Your task to perform on an android device: Search for "bose quietcomfort 35" on newegg.com, select the first entry, and add it to the cart. Image 0: 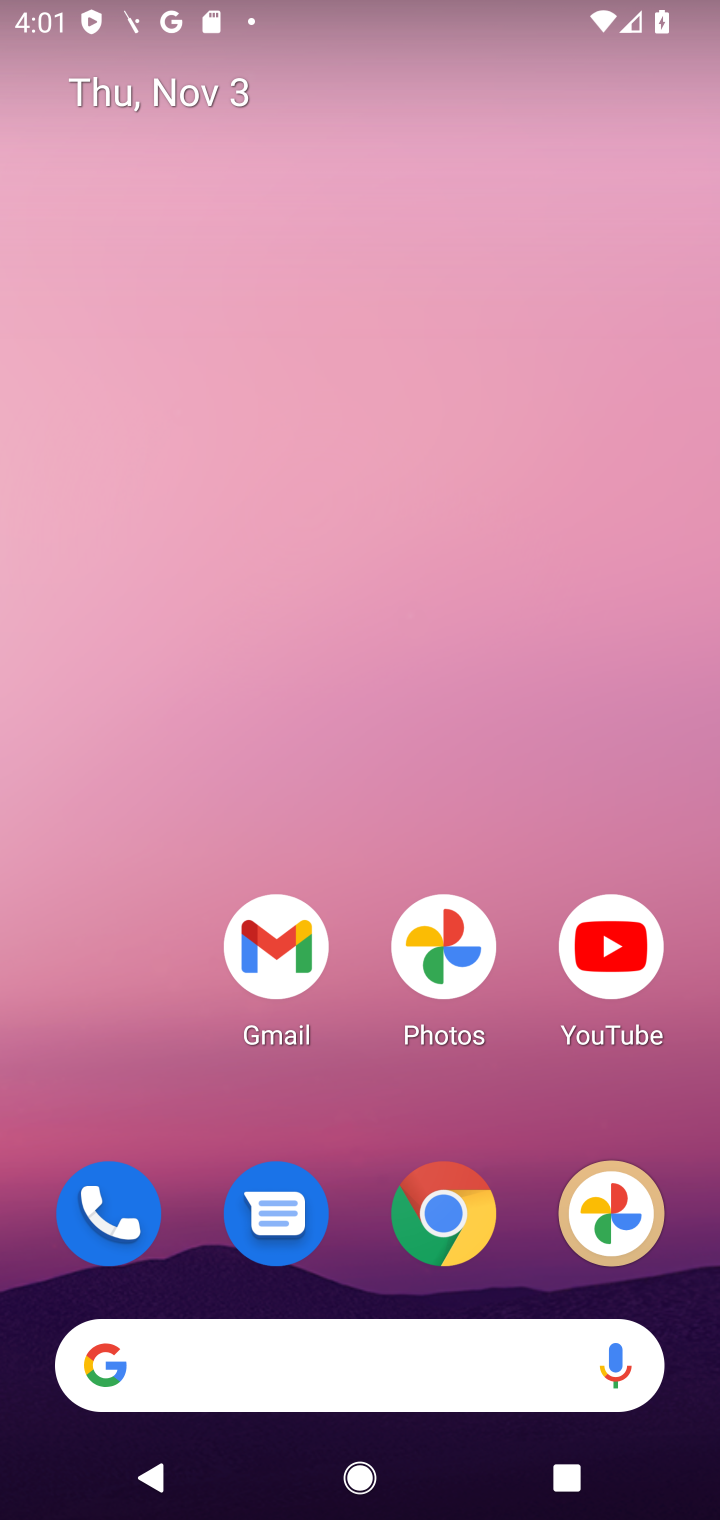
Step 0: click (427, 1231)
Your task to perform on an android device: Search for "bose quietcomfort 35" on newegg.com, select the first entry, and add it to the cart. Image 1: 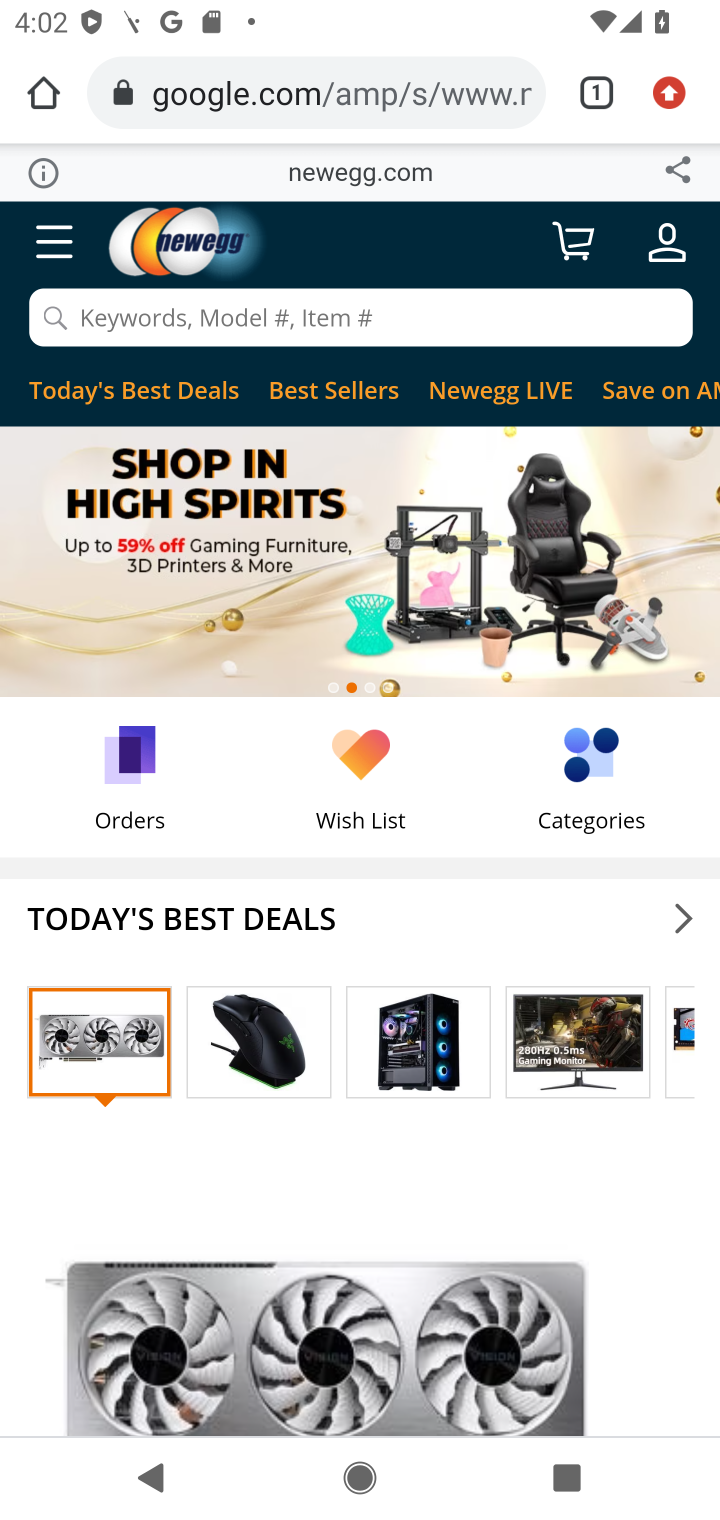
Step 1: click (252, 321)
Your task to perform on an android device: Search for "bose quietcomfort 35" on newegg.com, select the first entry, and add it to the cart. Image 2: 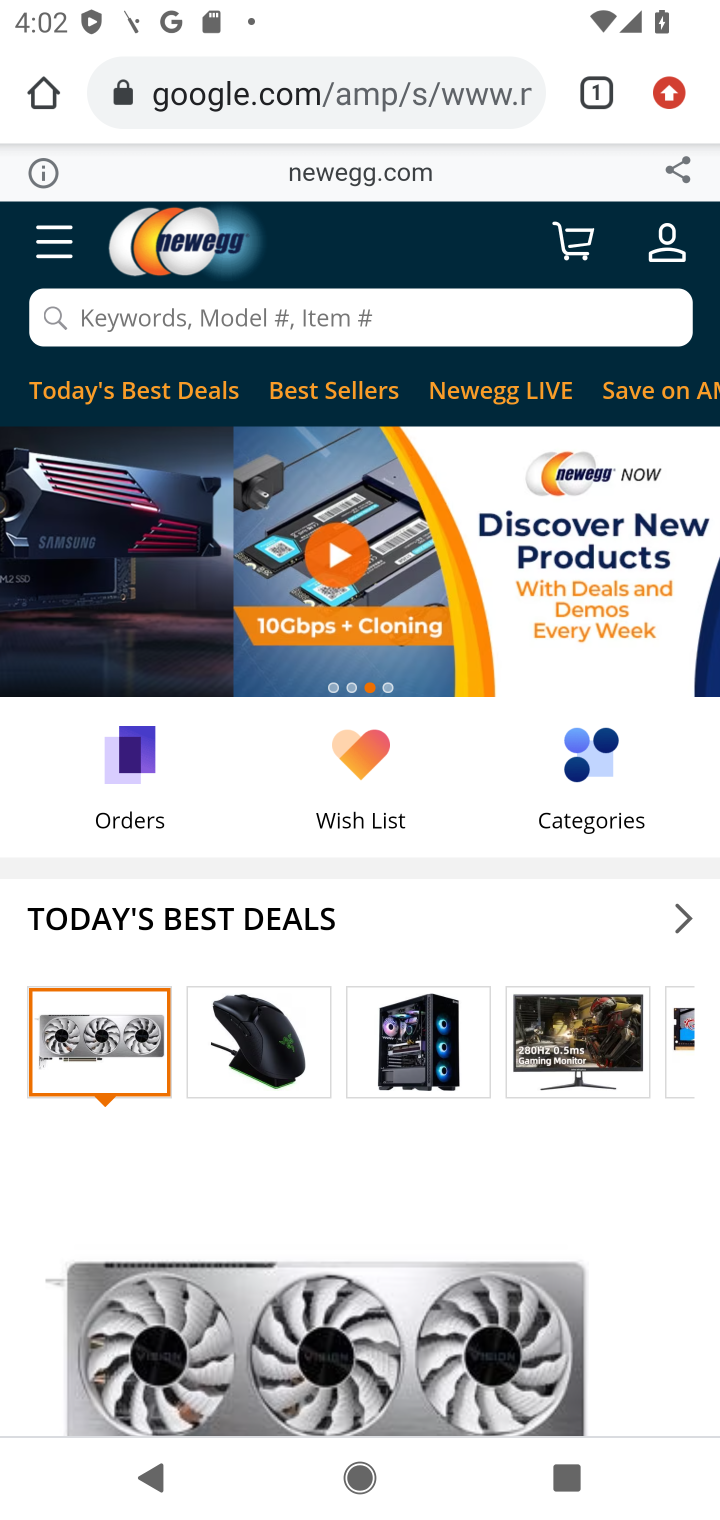
Step 2: type "bose quietcomfort 35"
Your task to perform on an android device: Search for "bose quietcomfort 35" on newegg.com, select the first entry, and add it to the cart. Image 3: 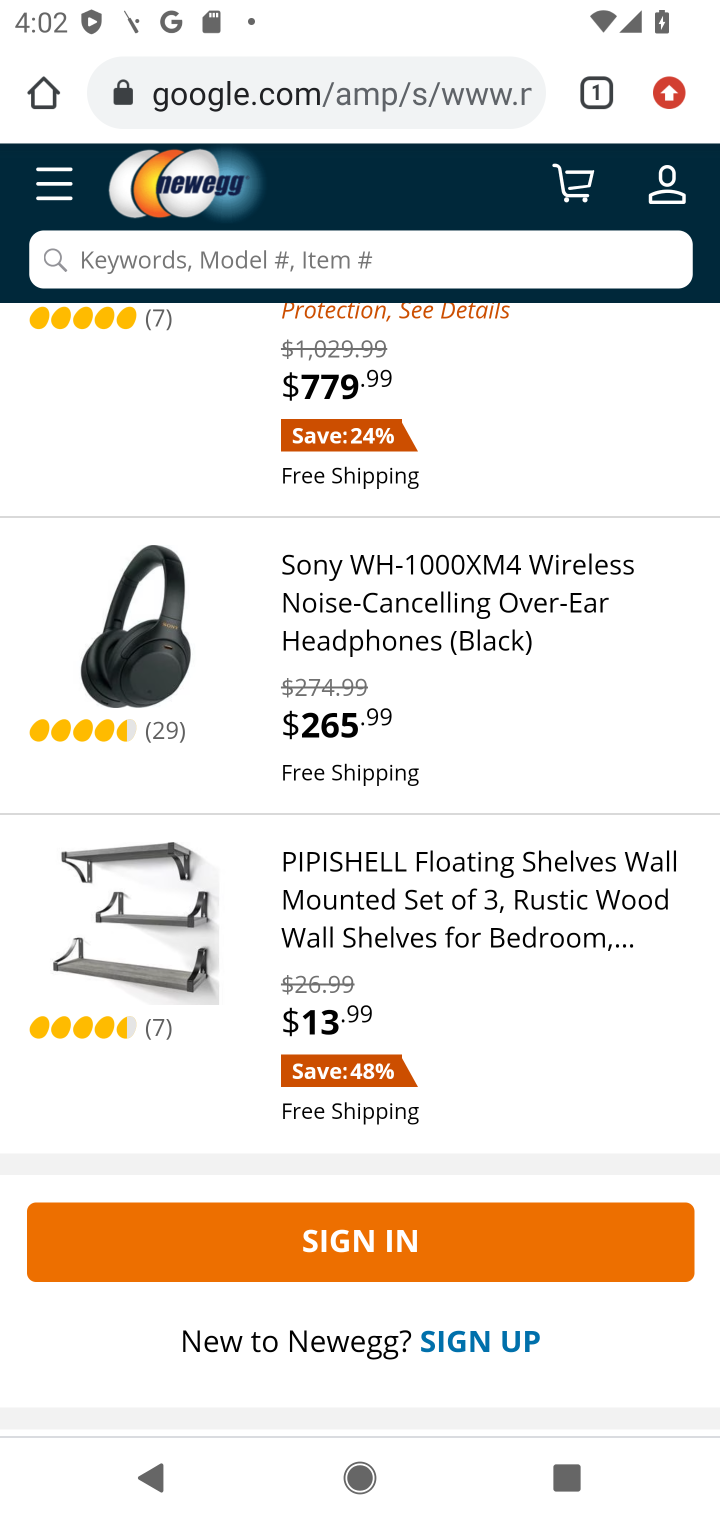
Step 3: click (216, 265)
Your task to perform on an android device: Search for "bose quietcomfort 35" on newegg.com, select the first entry, and add it to the cart. Image 4: 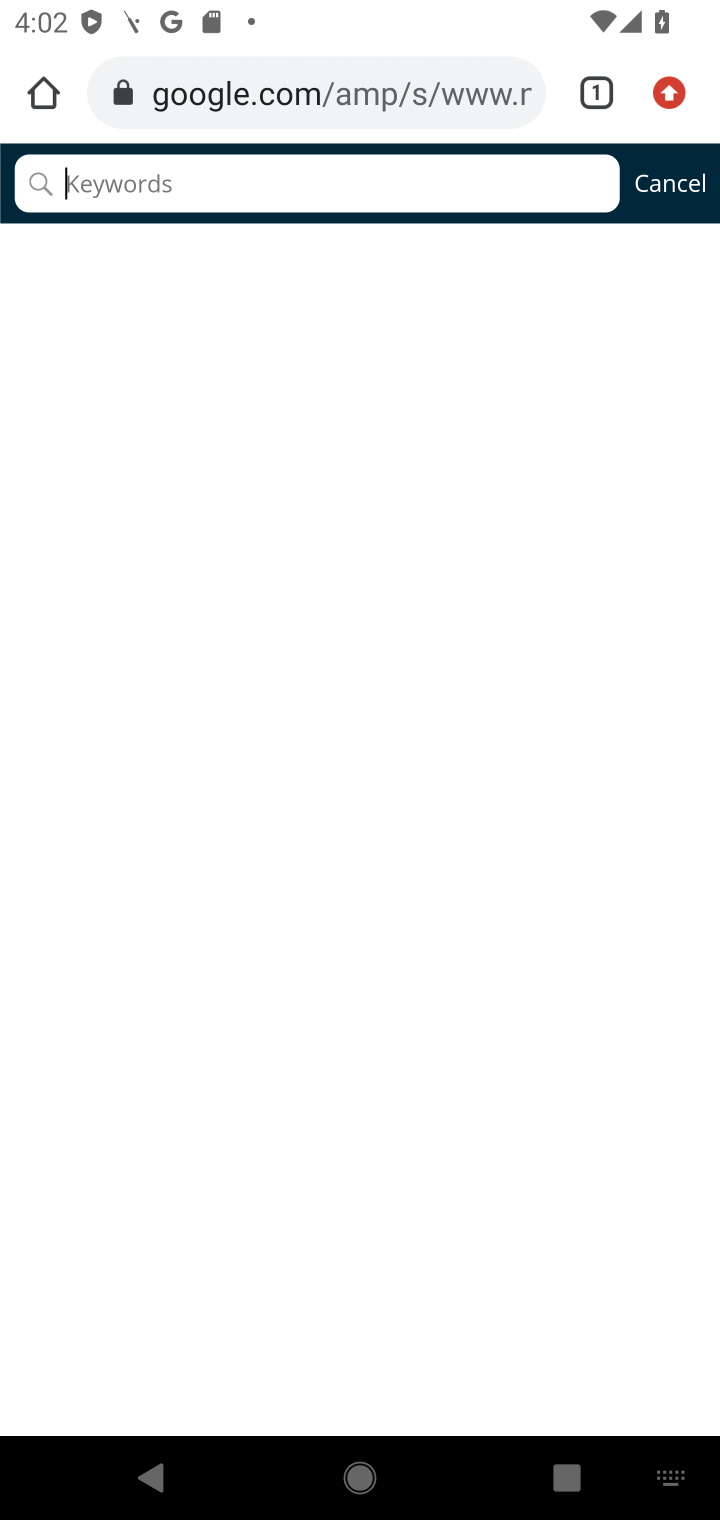
Step 4: type "bose quietcomfort 35"
Your task to perform on an android device: Search for "bose quietcomfort 35" on newegg.com, select the first entry, and add it to the cart. Image 5: 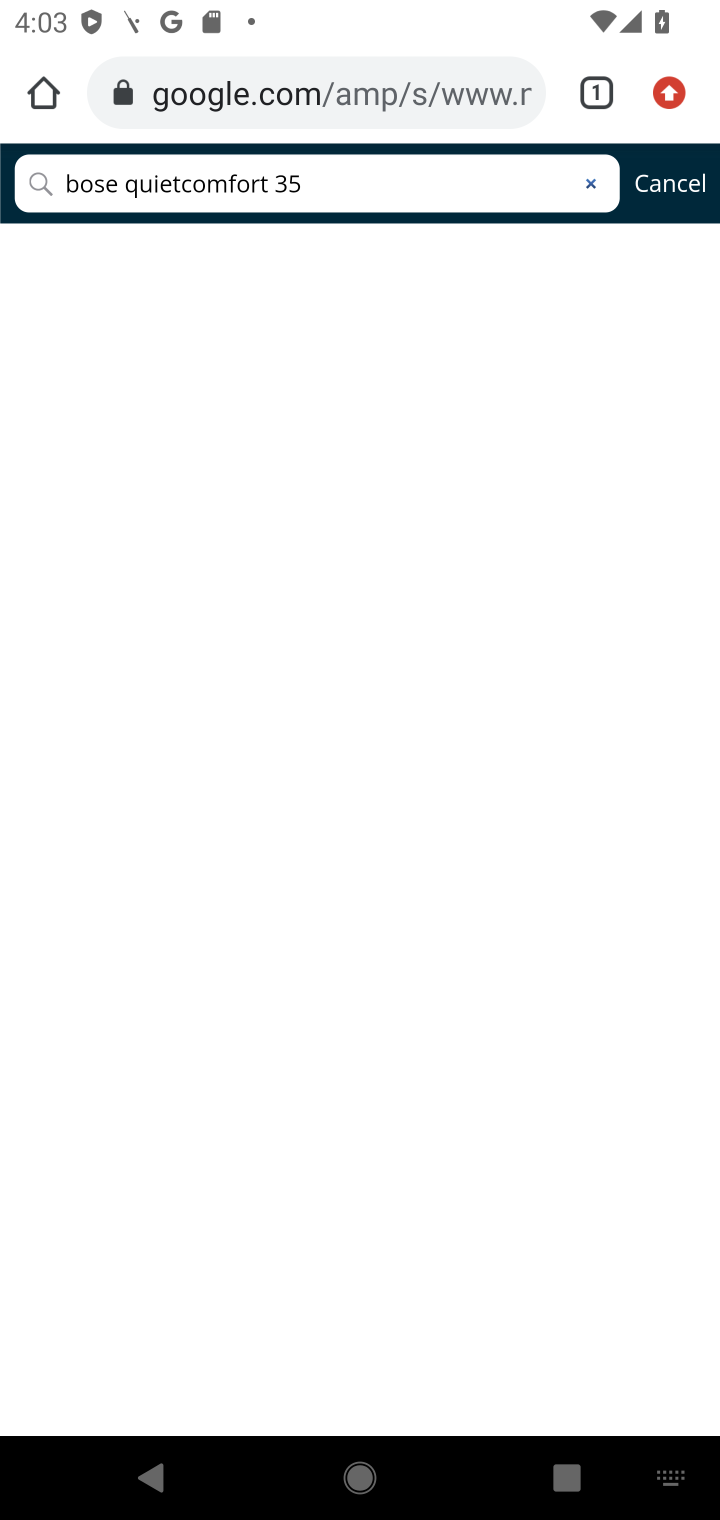
Step 5: click (42, 181)
Your task to perform on an android device: Search for "bose quietcomfort 35" on newegg.com, select the first entry, and add it to the cart. Image 6: 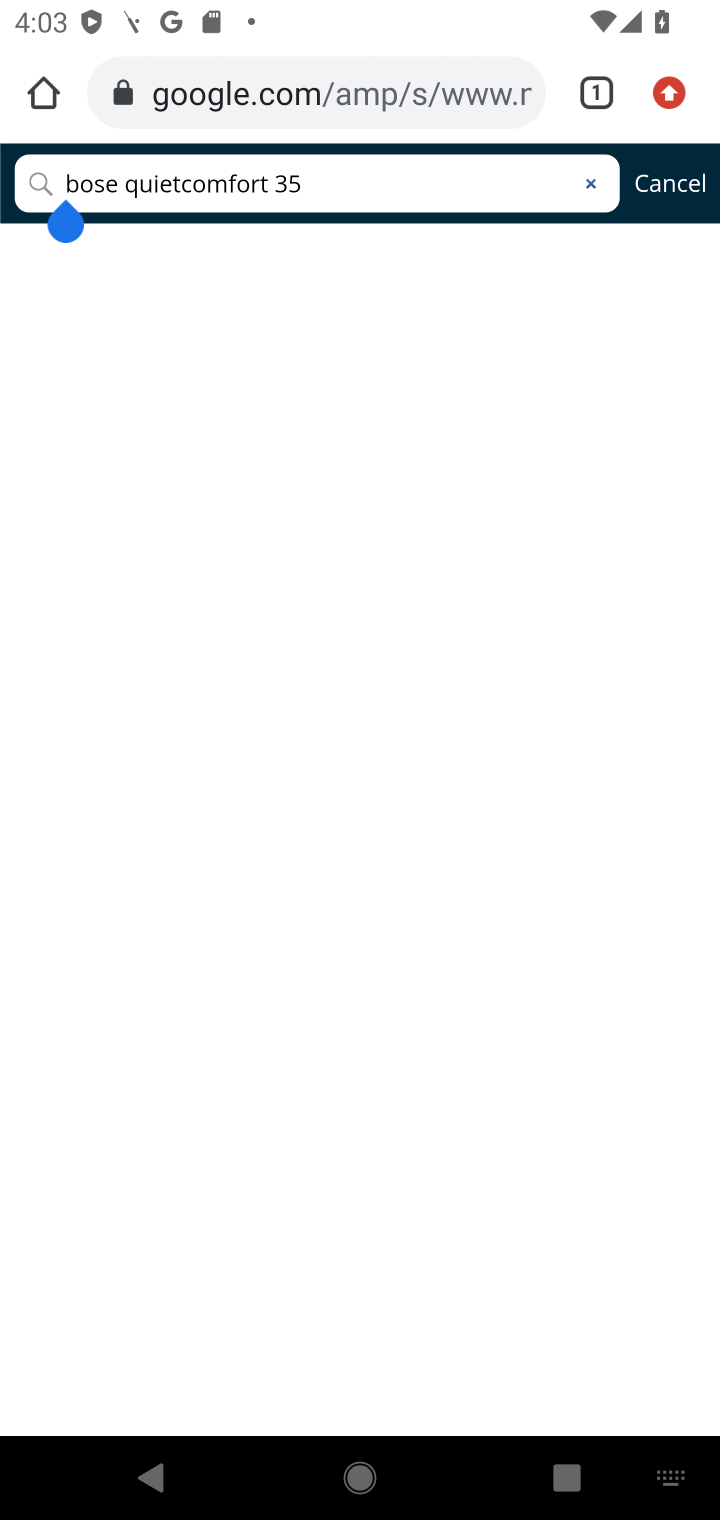
Step 6: task complete